Your task to perform on an android device: Search for sushi restaurants on Maps Image 0: 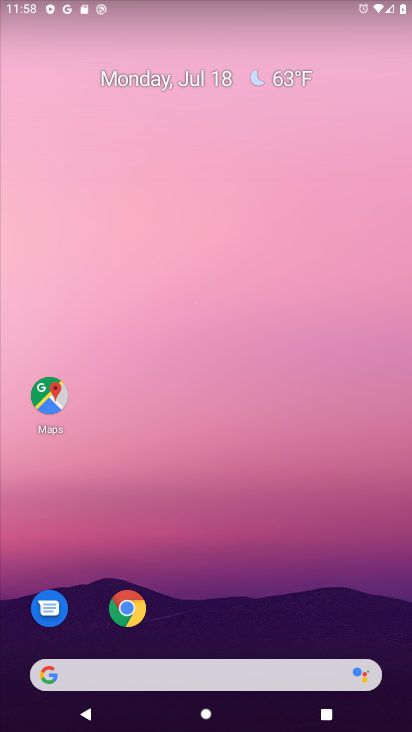
Step 0: click (59, 393)
Your task to perform on an android device: Search for sushi restaurants on Maps Image 1: 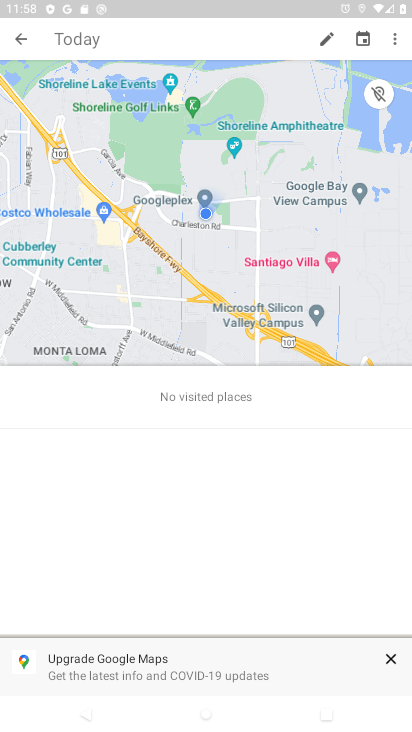
Step 1: click (25, 36)
Your task to perform on an android device: Search for sushi restaurants on Maps Image 2: 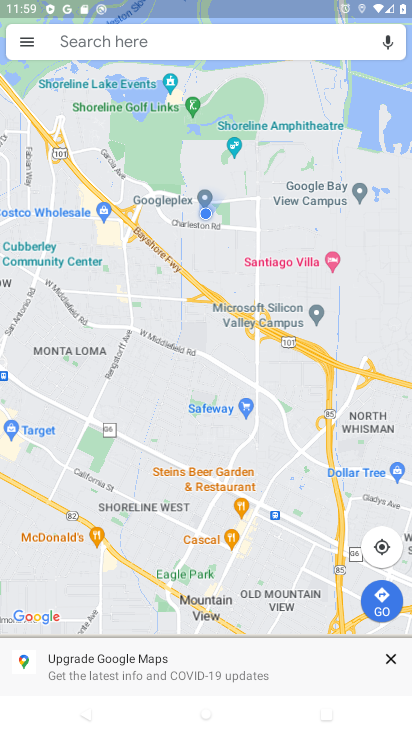
Step 2: click (165, 42)
Your task to perform on an android device: Search for sushi restaurants on Maps Image 3: 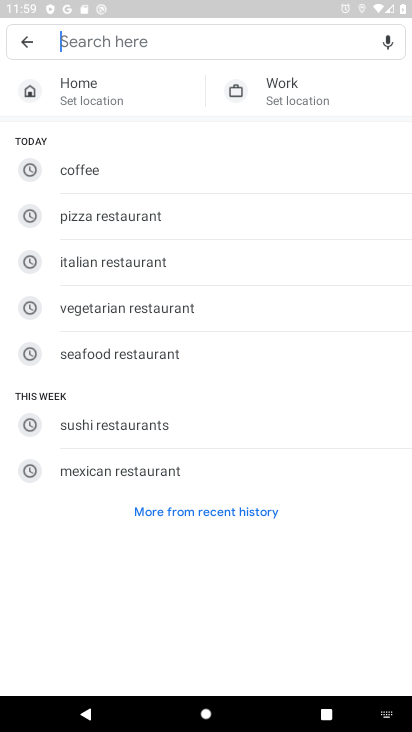
Step 3: type "sushi restaurants"
Your task to perform on an android device: Search for sushi restaurants on Maps Image 4: 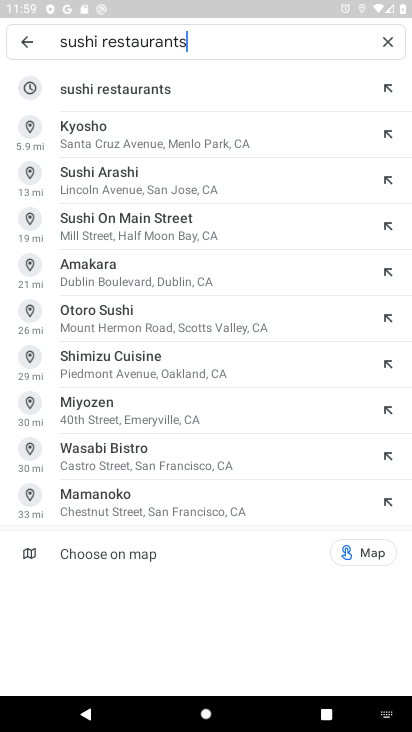
Step 4: click (199, 83)
Your task to perform on an android device: Search for sushi restaurants on Maps Image 5: 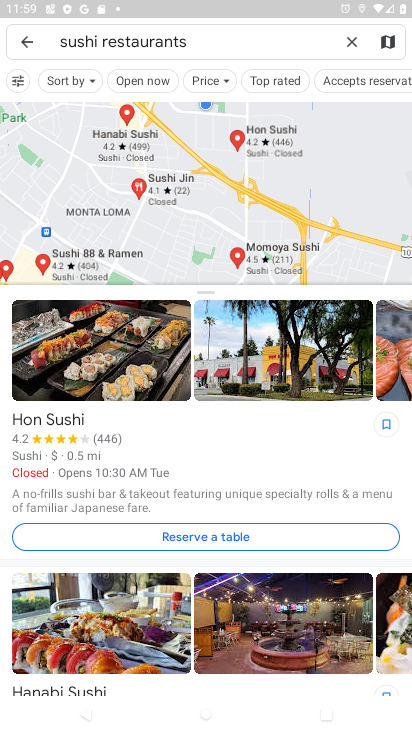
Step 5: task complete